Your task to perform on an android device: Go to Yahoo.com Image 0: 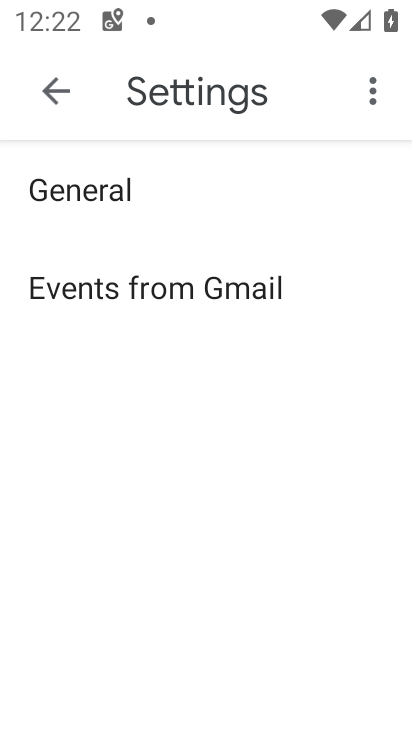
Step 0: press home button
Your task to perform on an android device: Go to Yahoo.com Image 1: 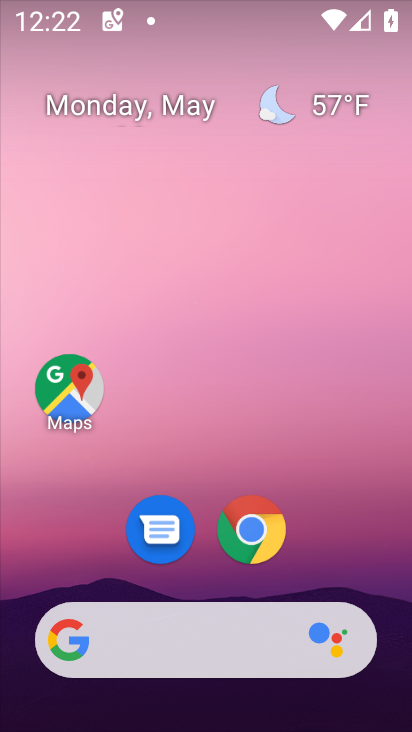
Step 1: click (255, 529)
Your task to perform on an android device: Go to Yahoo.com Image 2: 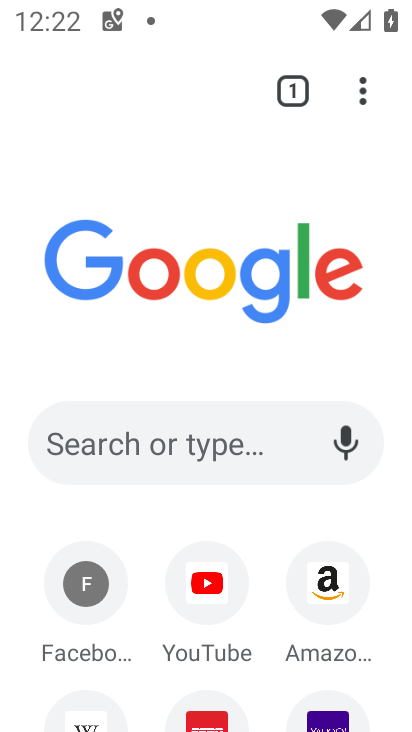
Step 2: click (226, 449)
Your task to perform on an android device: Go to Yahoo.com Image 3: 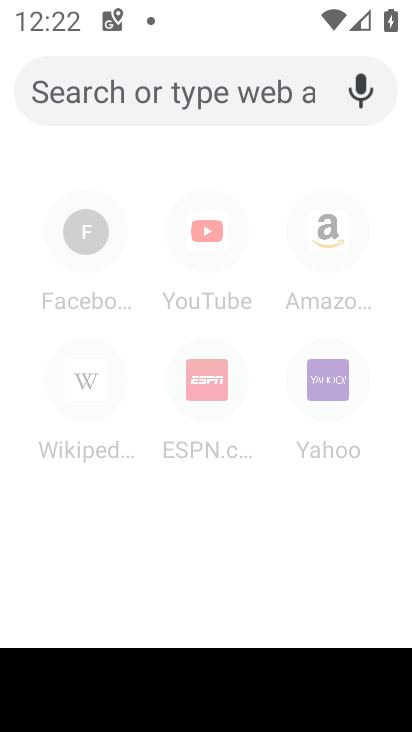
Step 3: type "Yahoo.com"
Your task to perform on an android device: Go to Yahoo.com Image 4: 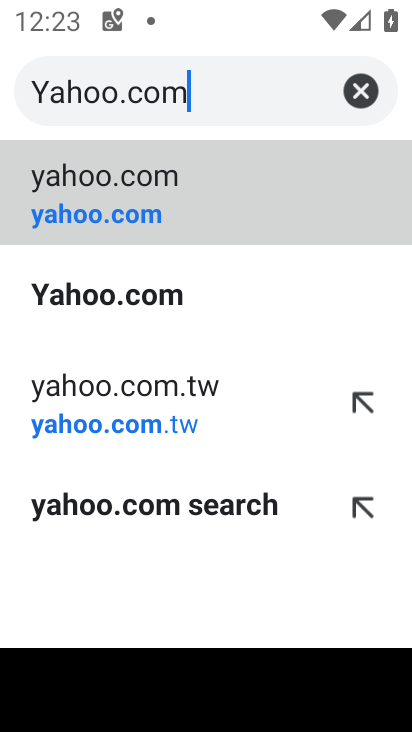
Step 4: click (166, 292)
Your task to perform on an android device: Go to Yahoo.com Image 5: 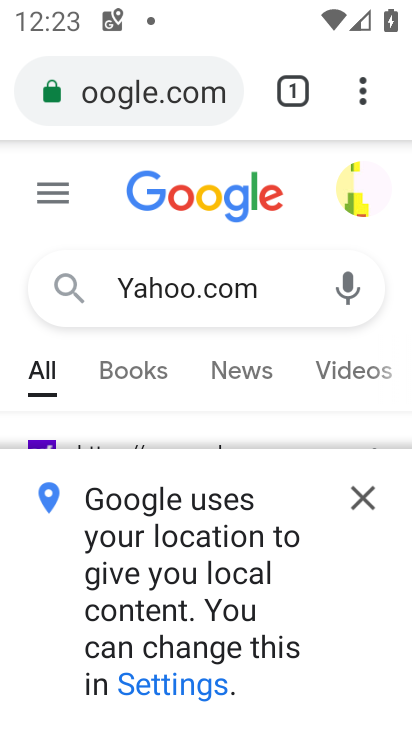
Step 5: click (364, 499)
Your task to perform on an android device: Go to Yahoo.com Image 6: 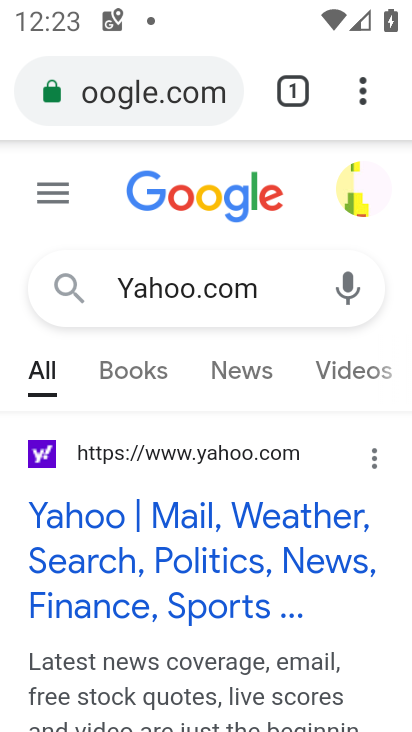
Step 6: click (318, 522)
Your task to perform on an android device: Go to Yahoo.com Image 7: 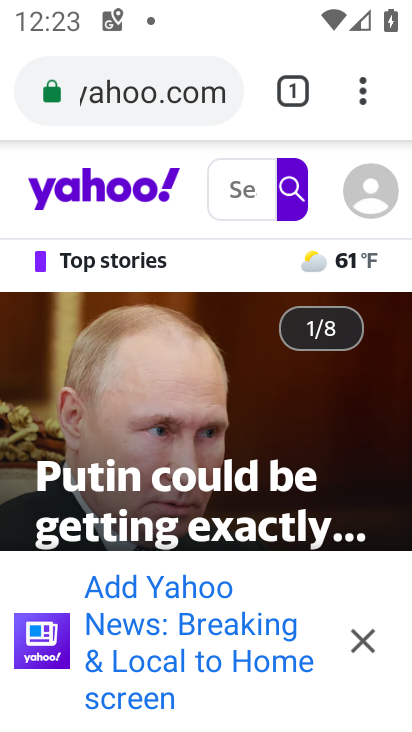
Step 7: click (361, 640)
Your task to perform on an android device: Go to Yahoo.com Image 8: 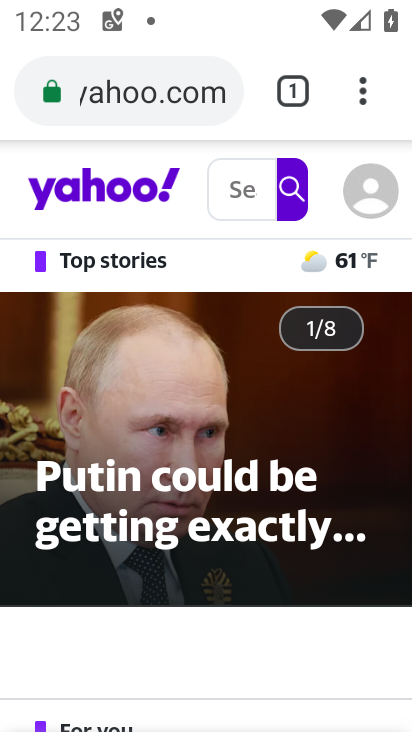
Step 8: task complete